Your task to perform on an android device: turn smart compose on in the gmail app Image 0: 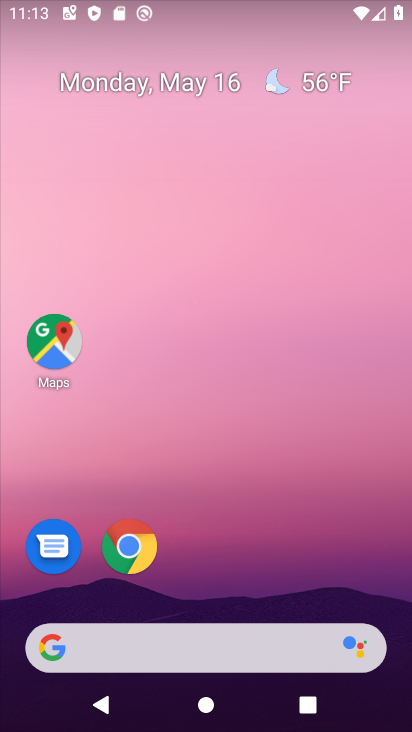
Step 0: drag from (310, 485) to (356, 15)
Your task to perform on an android device: turn smart compose on in the gmail app Image 1: 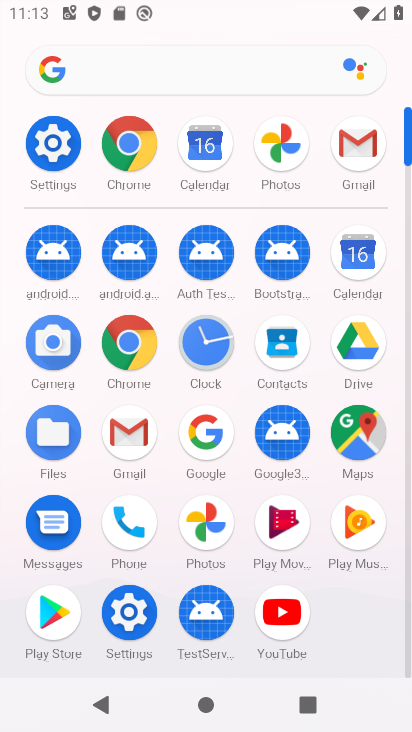
Step 1: click (354, 164)
Your task to perform on an android device: turn smart compose on in the gmail app Image 2: 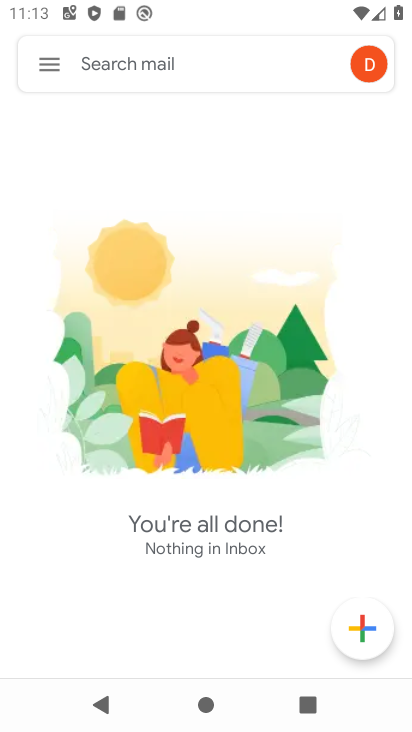
Step 2: click (27, 56)
Your task to perform on an android device: turn smart compose on in the gmail app Image 3: 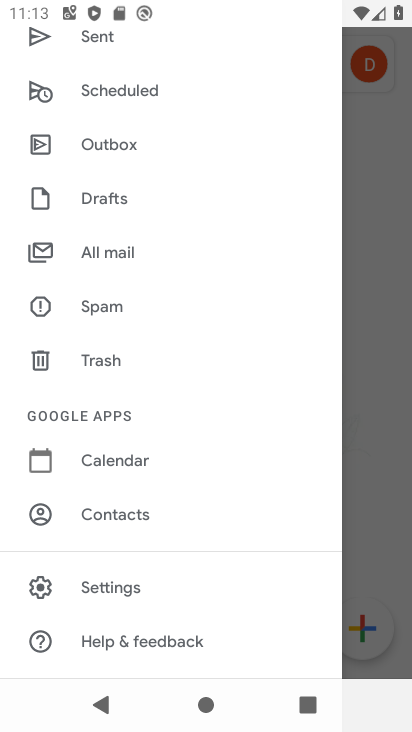
Step 3: click (148, 597)
Your task to perform on an android device: turn smart compose on in the gmail app Image 4: 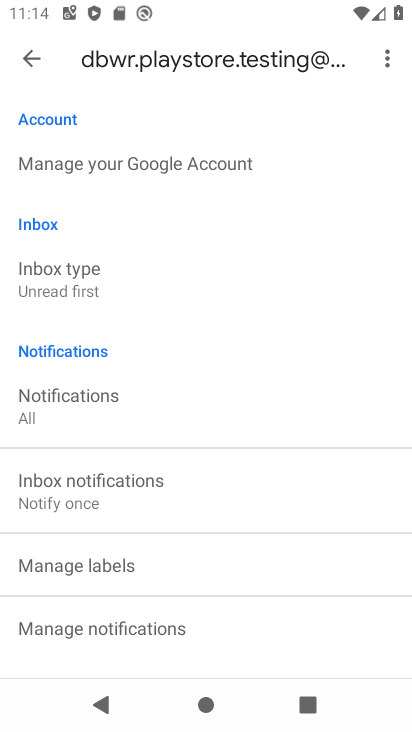
Step 4: task complete